Your task to perform on an android device: snooze an email in the gmail app Image 0: 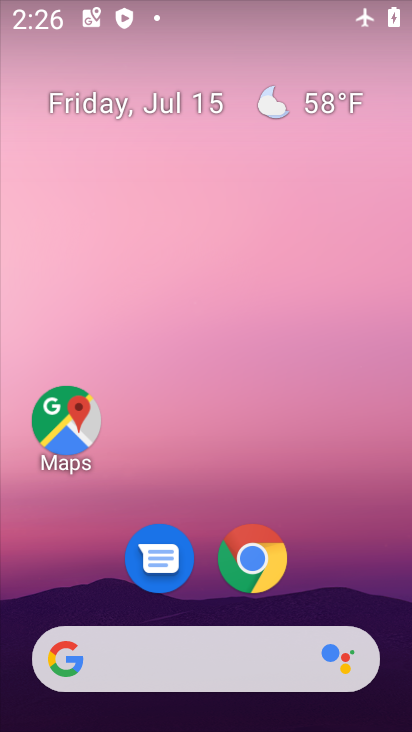
Step 0: drag from (346, 597) to (342, 198)
Your task to perform on an android device: snooze an email in the gmail app Image 1: 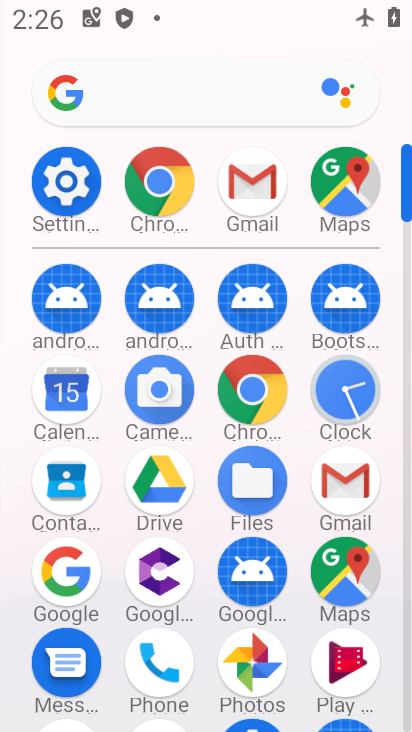
Step 1: click (348, 484)
Your task to perform on an android device: snooze an email in the gmail app Image 2: 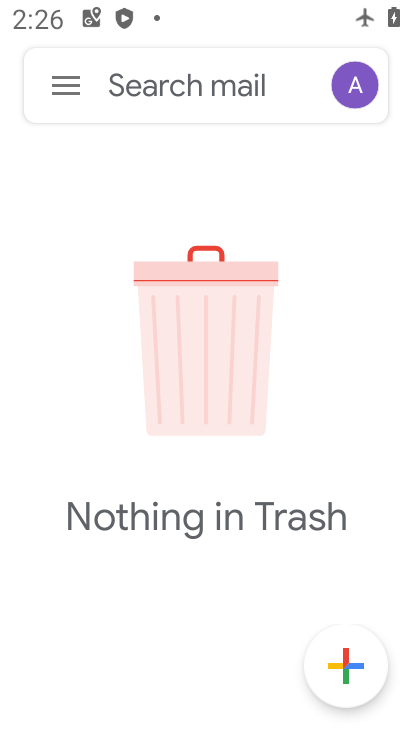
Step 2: click (69, 88)
Your task to perform on an android device: snooze an email in the gmail app Image 3: 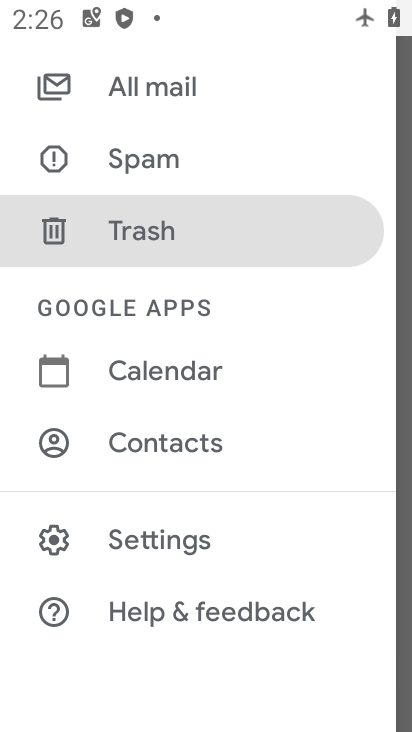
Step 3: drag from (219, 171) to (222, 281)
Your task to perform on an android device: snooze an email in the gmail app Image 4: 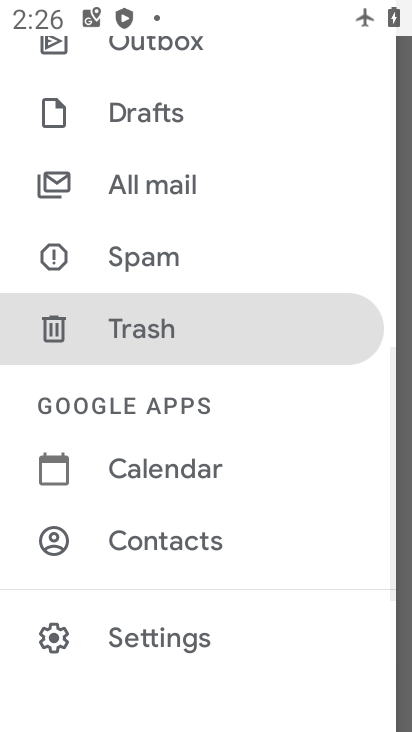
Step 4: drag from (220, 165) to (221, 291)
Your task to perform on an android device: snooze an email in the gmail app Image 5: 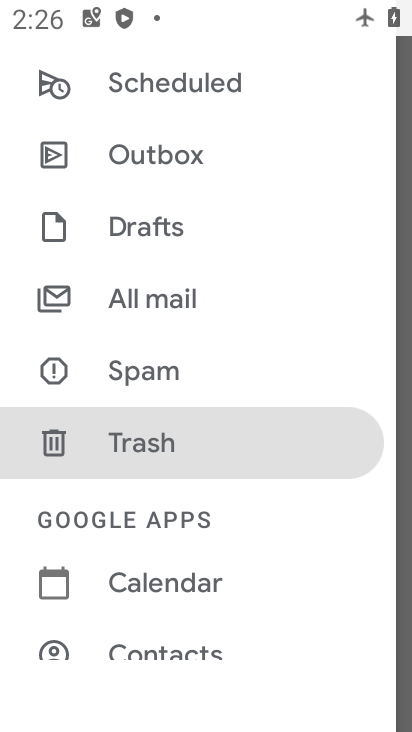
Step 5: drag from (257, 163) to (260, 281)
Your task to perform on an android device: snooze an email in the gmail app Image 6: 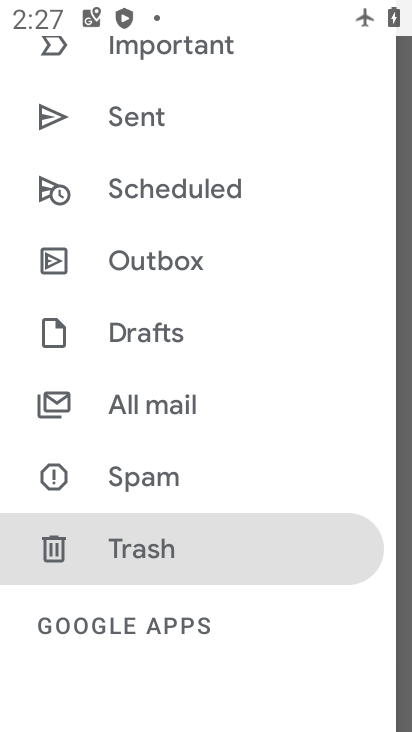
Step 6: drag from (268, 181) to (269, 315)
Your task to perform on an android device: snooze an email in the gmail app Image 7: 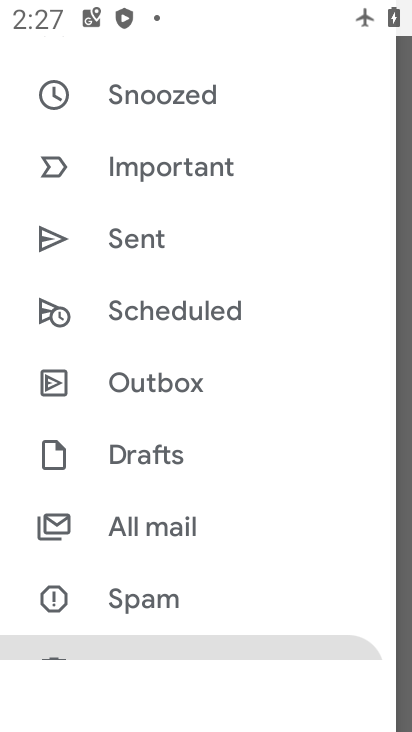
Step 7: drag from (280, 149) to (281, 286)
Your task to perform on an android device: snooze an email in the gmail app Image 8: 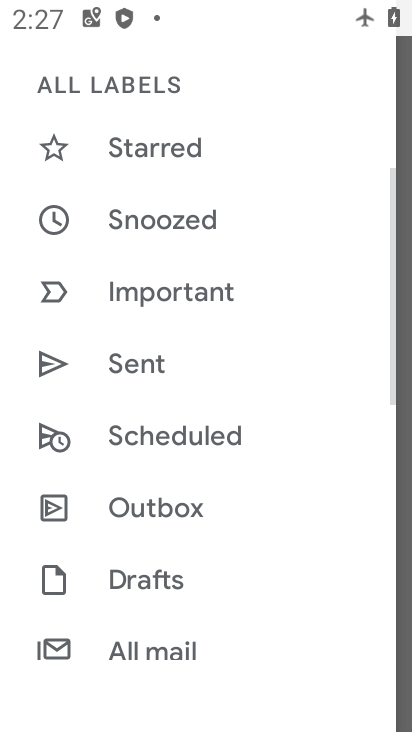
Step 8: click (205, 232)
Your task to perform on an android device: snooze an email in the gmail app Image 9: 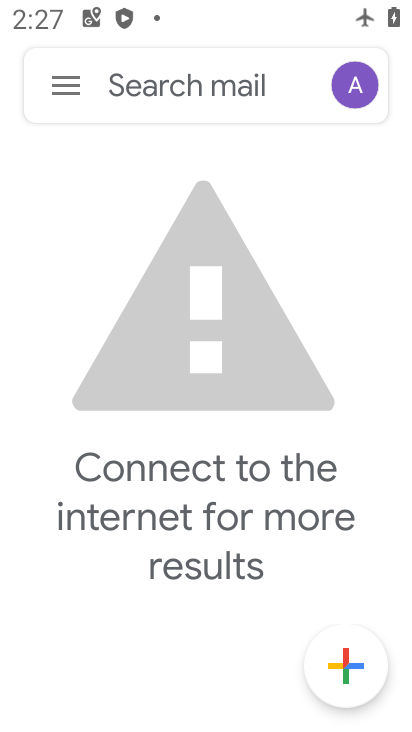
Step 9: task complete